Your task to perform on an android device: open a new tab in the chrome app Image 0: 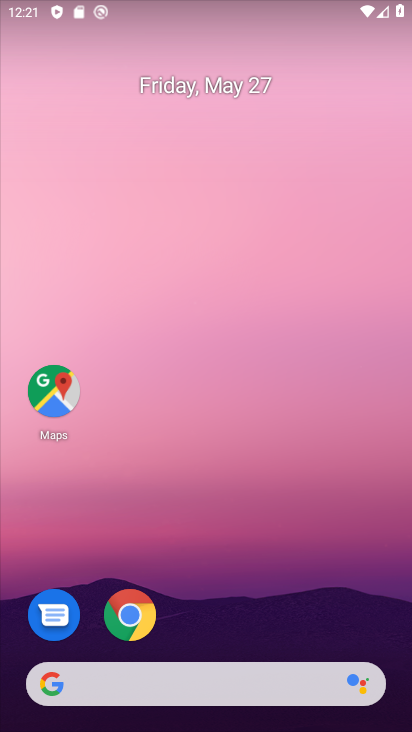
Step 0: press home button
Your task to perform on an android device: open a new tab in the chrome app Image 1: 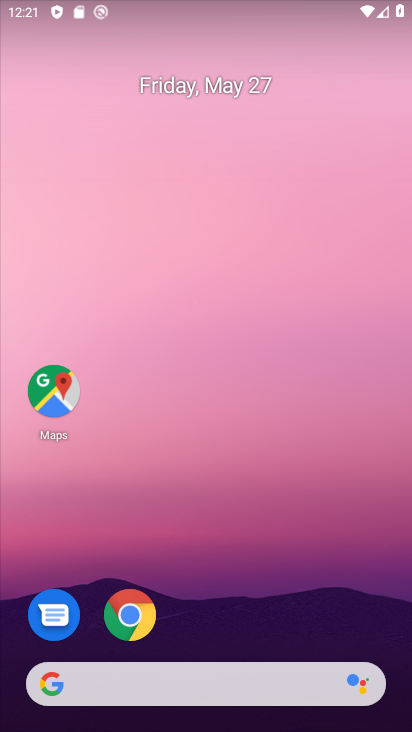
Step 1: click (131, 618)
Your task to perform on an android device: open a new tab in the chrome app Image 2: 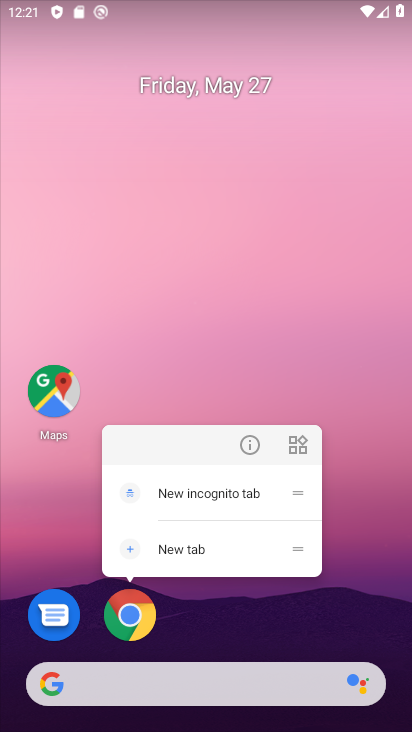
Step 2: click (286, 628)
Your task to perform on an android device: open a new tab in the chrome app Image 3: 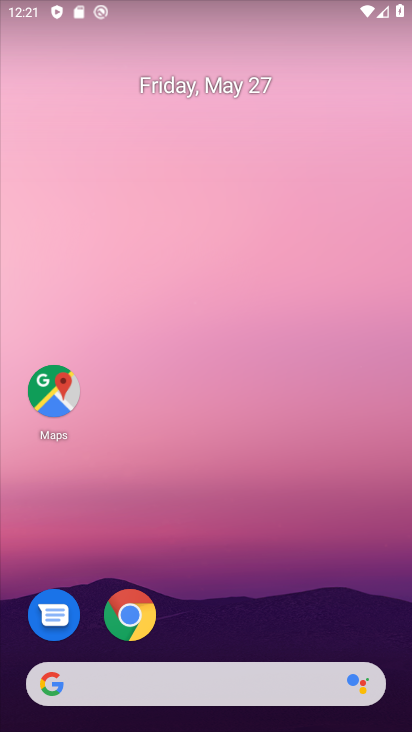
Step 3: drag from (271, 641) to (235, 105)
Your task to perform on an android device: open a new tab in the chrome app Image 4: 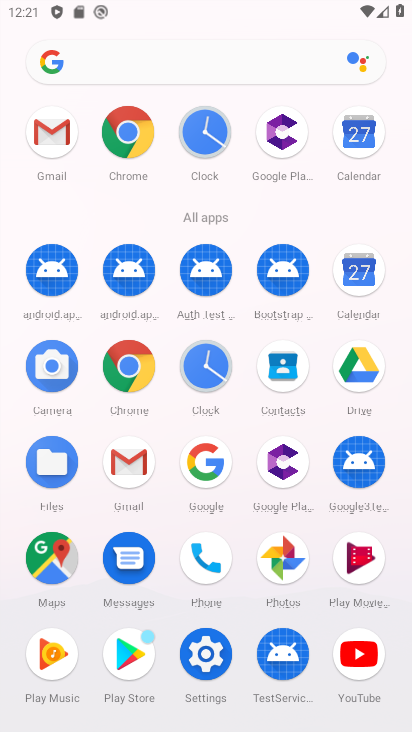
Step 4: click (126, 136)
Your task to perform on an android device: open a new tab in the chrome app Image 5: 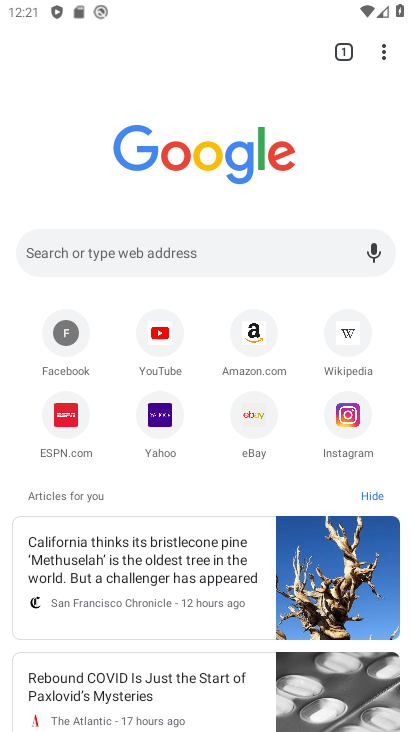
Step 5: click (348, 48)
Your task to perform on an android device: open a new tab in the chrome app Image 6: 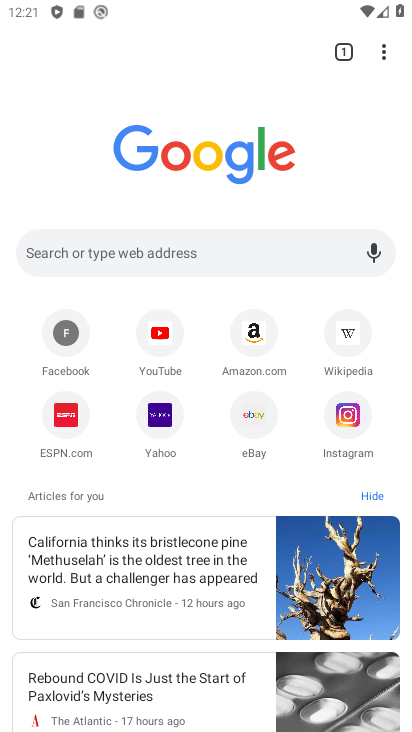
Step 6: click (341, 52)
Your task to perform on an android device: open a new tab in the chrome app Image 7: 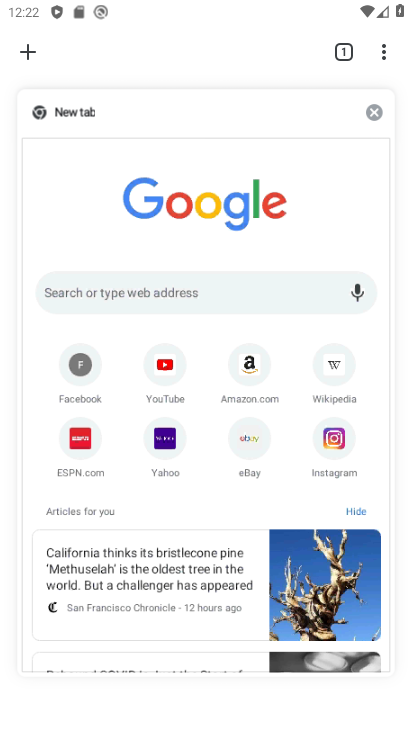
Step 7: click (30, 51)
Your task to perform on an android device: open a new tab in the chrome app Image 8: 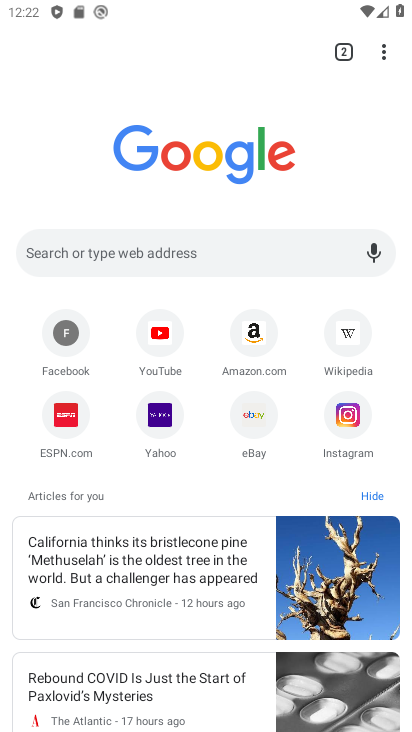
Step 8: task complete